Your task to perform on an android device: Open Google Chrome and click the shortcut for Amazon.com Image 0: 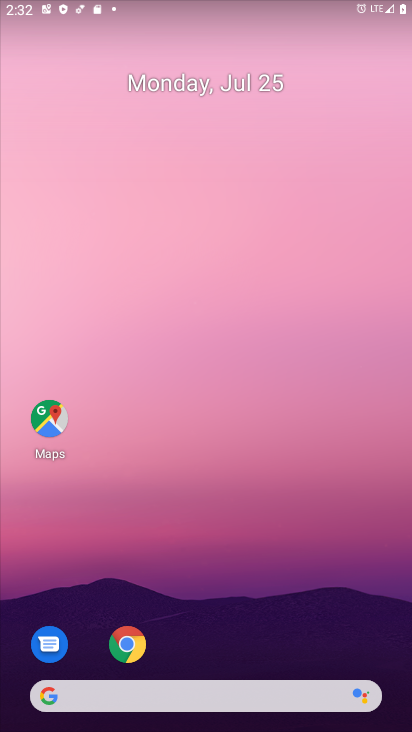
Step 0: drag from (399, 659) to (151, 1)
Your task to perform on an android device: Open Google Chrome and click the shortcut for Amazon.com Image 1: 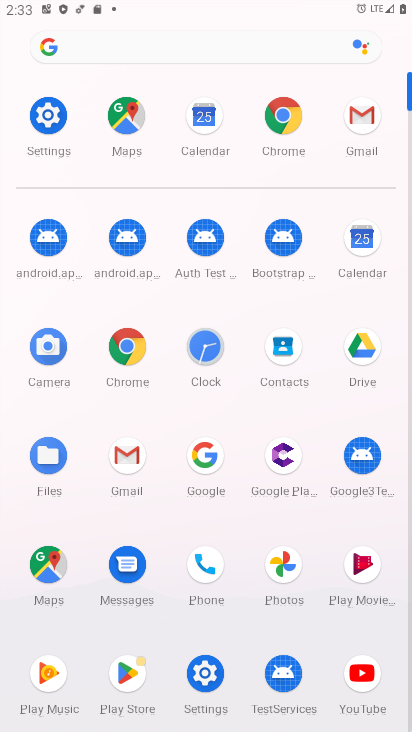
Step 1: click (128, 360)
Your task to perform on an android device: Open Google Chrome and click the shortcut for Amazon.com Image 2: 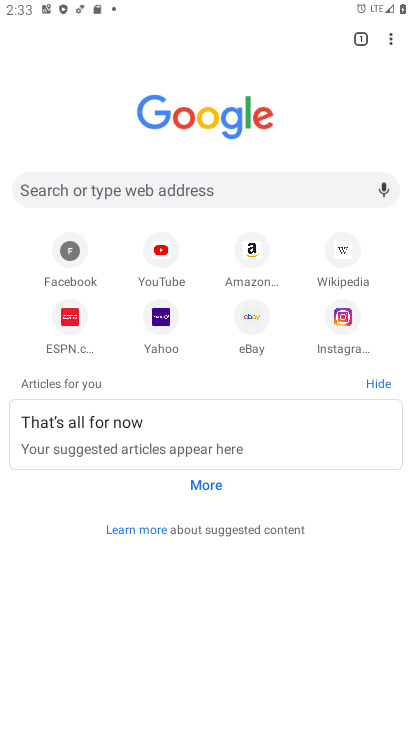
Step 2: click (251, 250)
Your task to perform on an android device: Open Google Chrome and click the shortcut for Amazon.com Image 3: 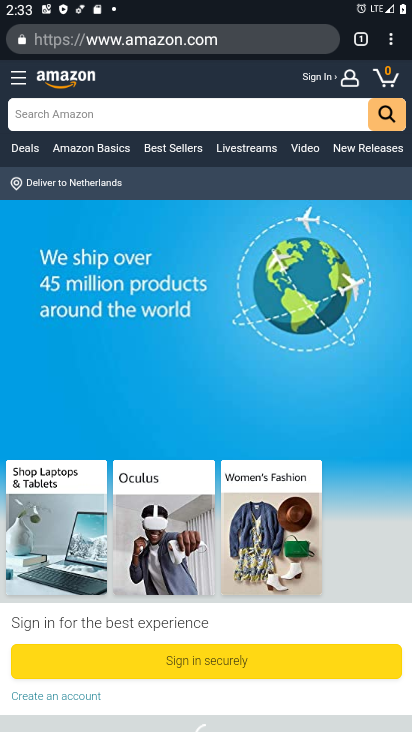
Step 3: task complete